Your task to perform on an android device: turn on airplane mode Image 0: 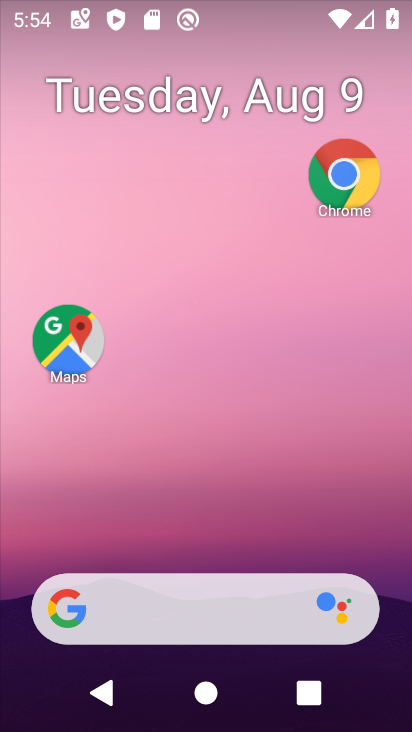
Step 0: drag from (264, 170) to (270, 7)
Your task to perform on an android device: turn on airplane mode Image 1: 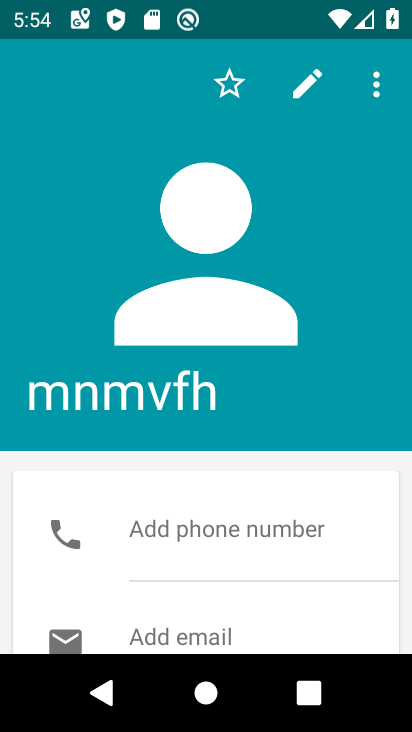
Step 1: press home button
Your task to perform on an android device: turn on airplane mode Image 2: 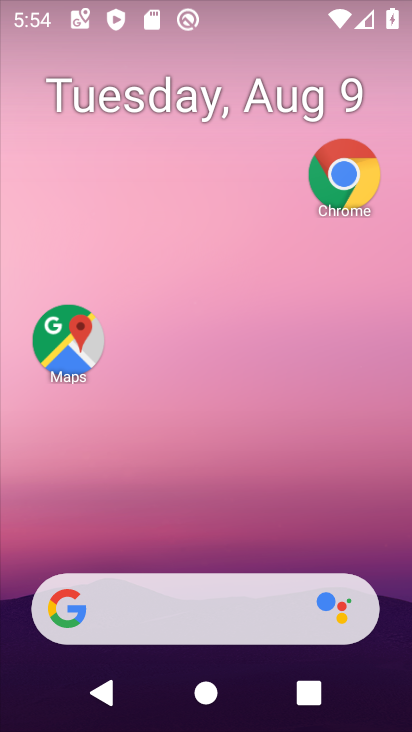
Step 2: drag from (192, 520) to (141, 7)
Your task to perform on an android device: turn on airplane mode Image 3: 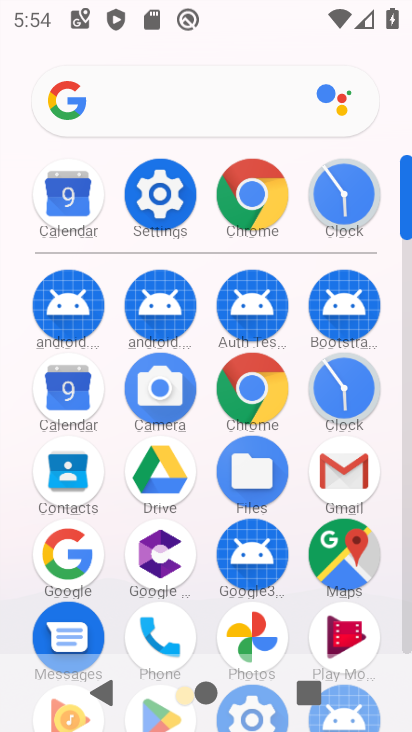
Step 3: drag from (203, 555) to (203, 350)
Your task to perform on an android device: turn on airplane mode Image 4: 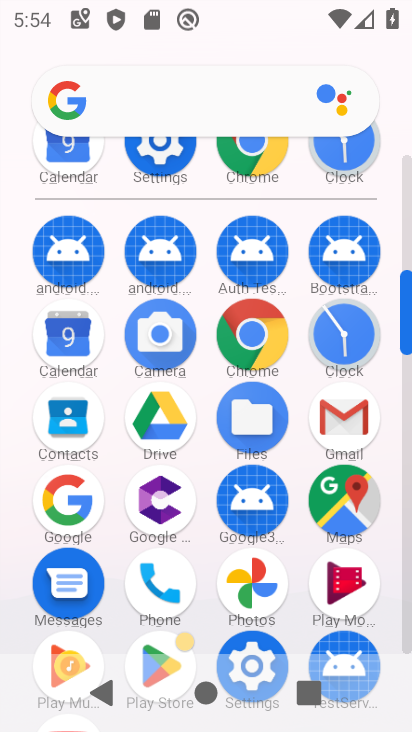
Step 4: click (169, 157)
Your task to perform on an android device: turn on airplane mode Image 5: 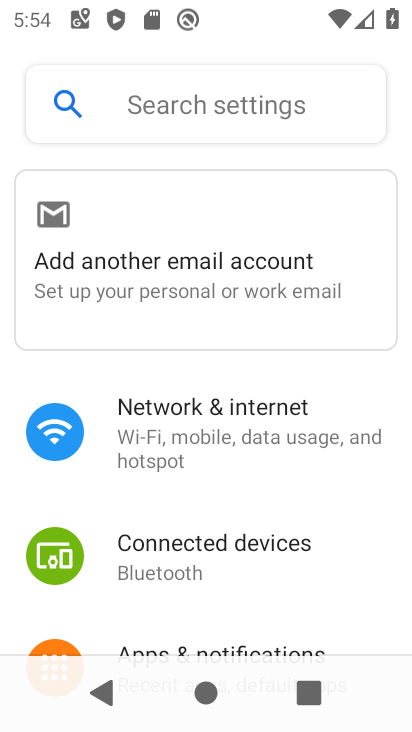
Step 5: click (193, 411)
Your task to perform on an android device: turn on airplane mode Image 6: 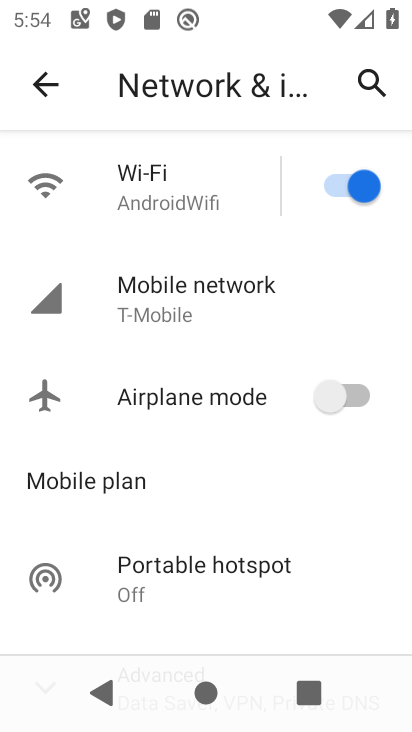
Step 6: click (190, 388)
Your task to perform on an android device: turn on airplane mode Image 7: 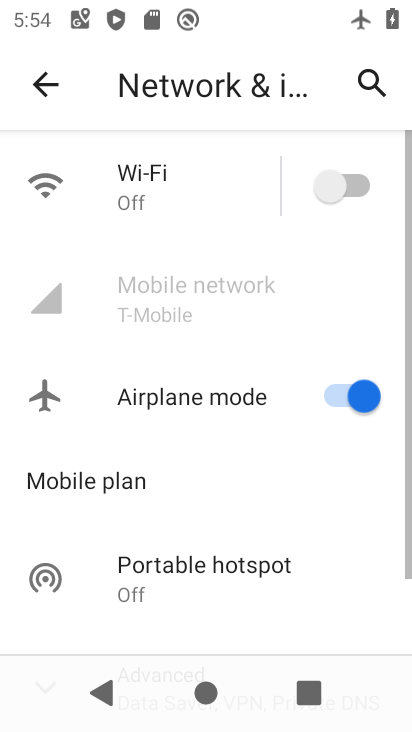
Step 7: task complete